Your task to perform on an android device: find snoozed emails in the gmail app Image 0: 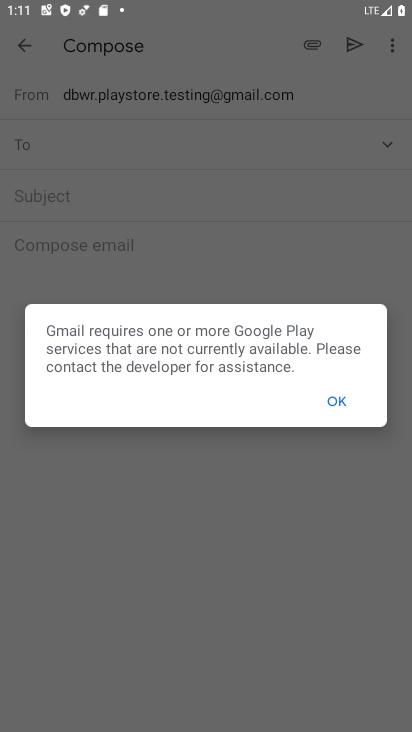
Step 0: press home button
Your task to perform on an android device: find snoozed emails in the gmail app Image 1: 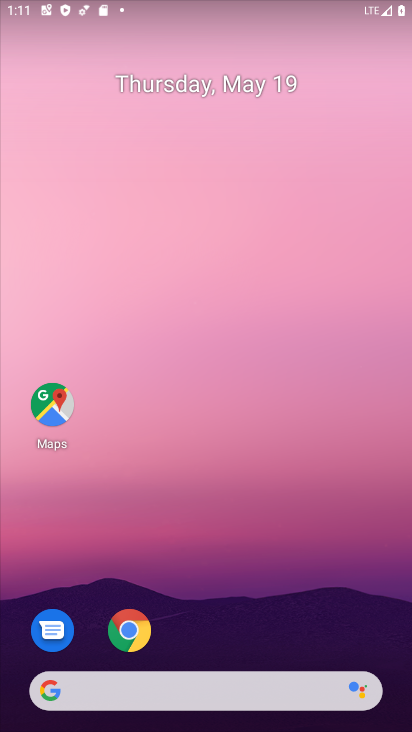
Step 1: drag from (181, 661) to (99, 91)
Your task to perform on an android device: find snoozed emails in the gmail app Image 2: 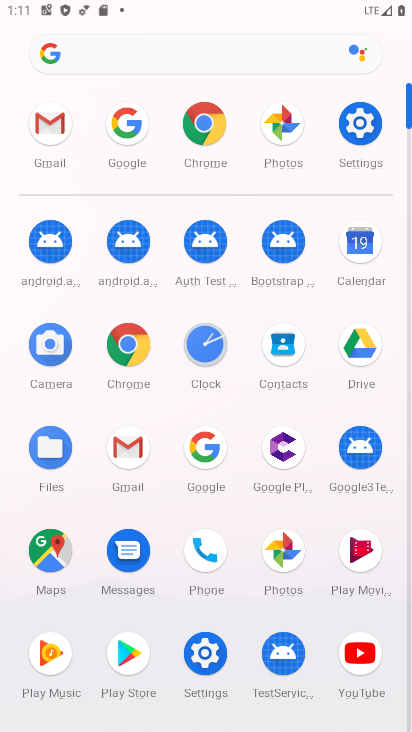
Step 2: click (129, 441)
Your task to perform on an android device: find snoozed emails in the gmail app Image 3: 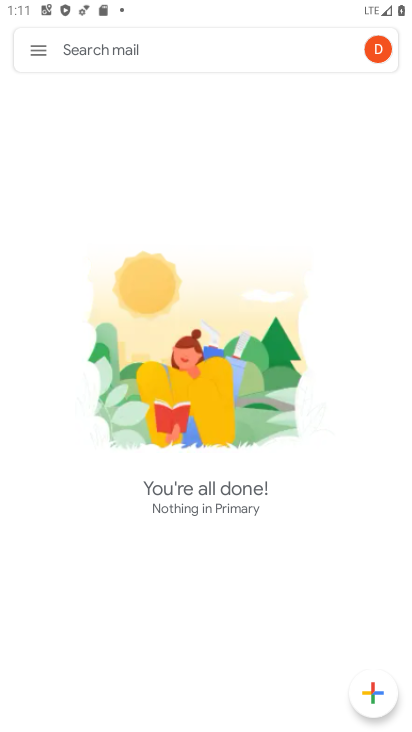
Step 3: click (40, 41)
Your task to perform on an android device: find snoozed emails in the gmail app Image 4: 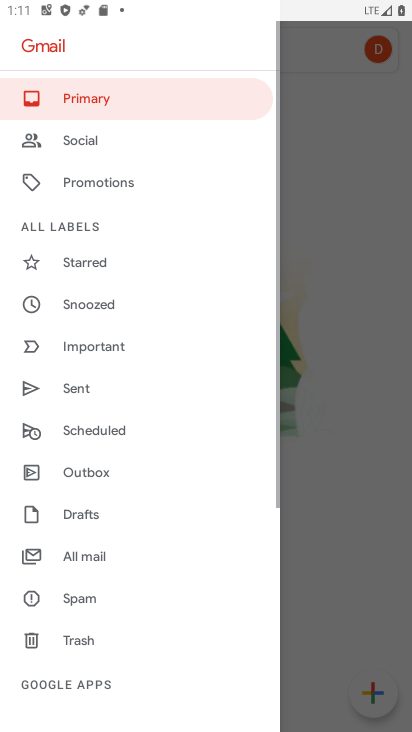
Step 4: click (40, 53)
Your task to perform on an android device: find snoozed emails in the gmail app Image 5: 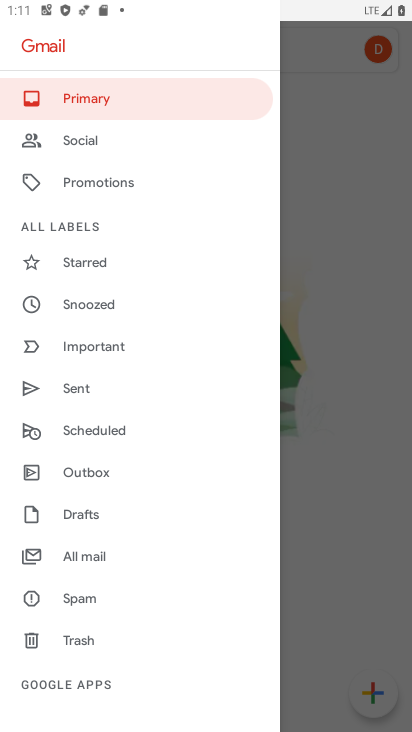
Step 5: click (122, 310)
Your task to perform on an android device: find snoozed emails in the gmail app Image 6: 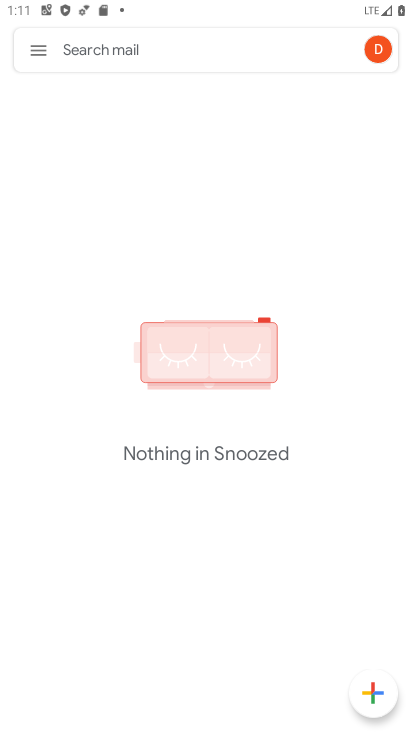
Step 6: task complete